Your task to perform on an android device: turn off location history Image 0: 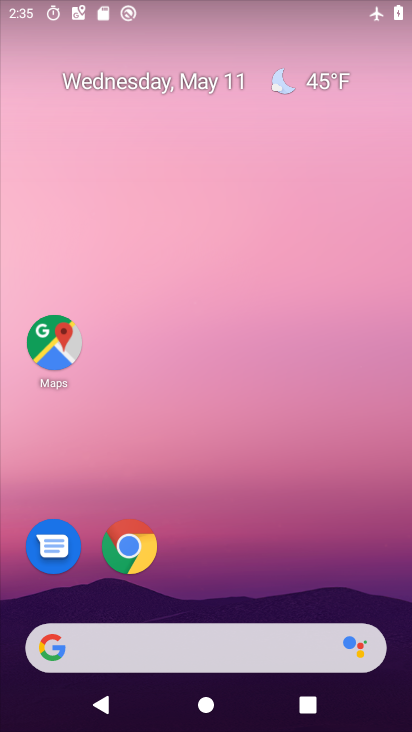
Step 0: drag from (228, 591) to (70, 3)
Your task to perform on an android device: turn off location history Image 1: 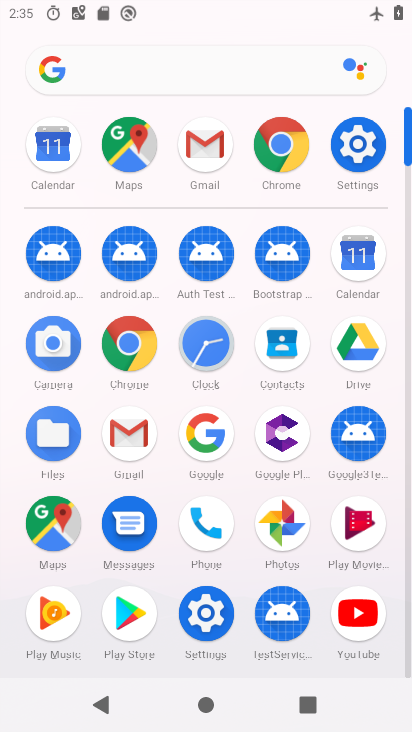
Step 1: click (367, 148)
Your task to perform on an android device: turn off location history Image 2: 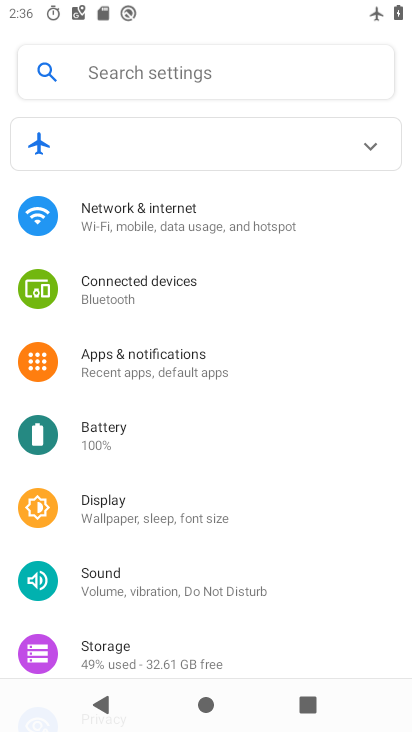
Step 2: drag from (162, 571) to (251, 57)
Your task to perform on an android device: turn off location history Image 3: 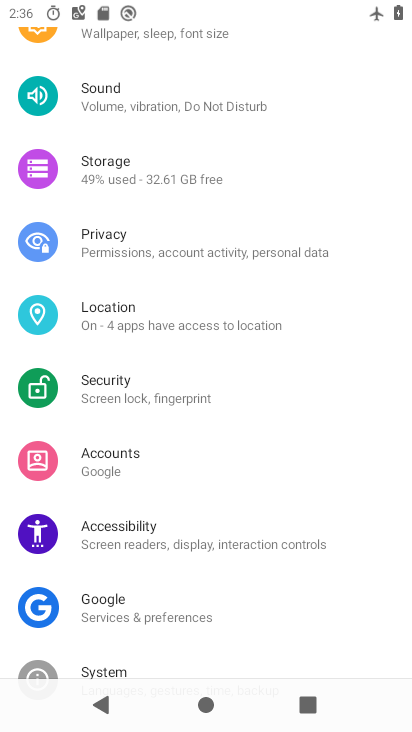
Step 3: click (165, 333)
Your task to perform on an android device: turn off location history Image 4: 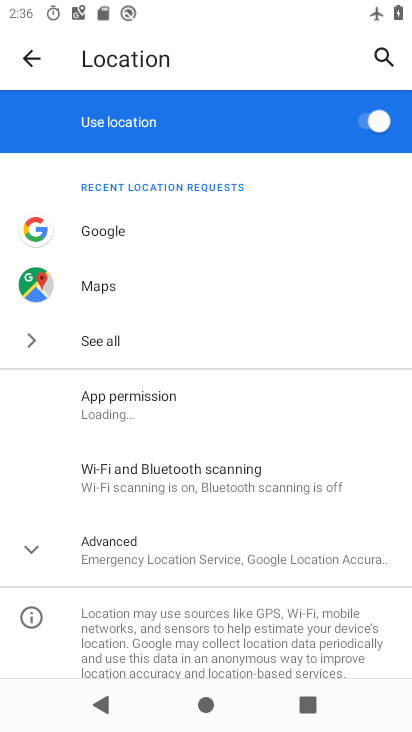
Step 4: click (153, 559)
Your task to perform on an android device: turn off location history Image 5: 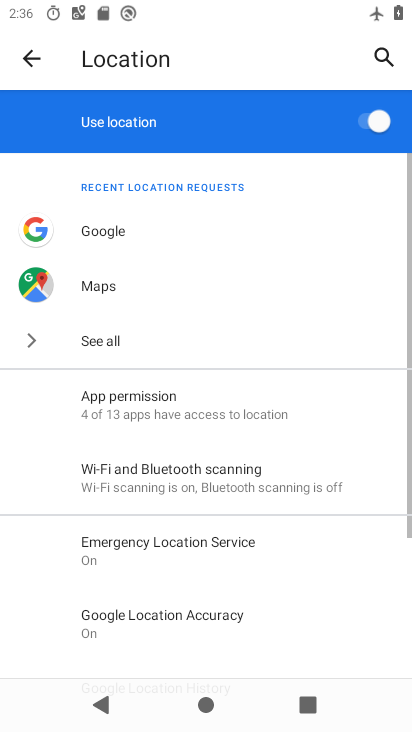
Step 5: drag from (161, 567) to (230, 253)
Your task to perform on an android device: turn off location history Image 6: 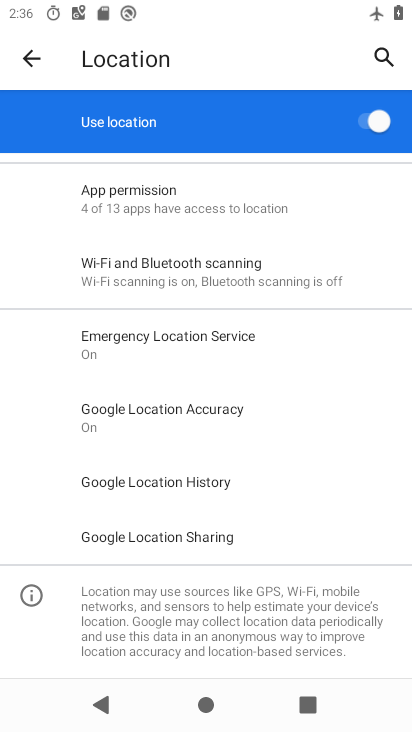
Step 6: click (201, 490)
Your task to perform on an android device: turn off location history Image 7: 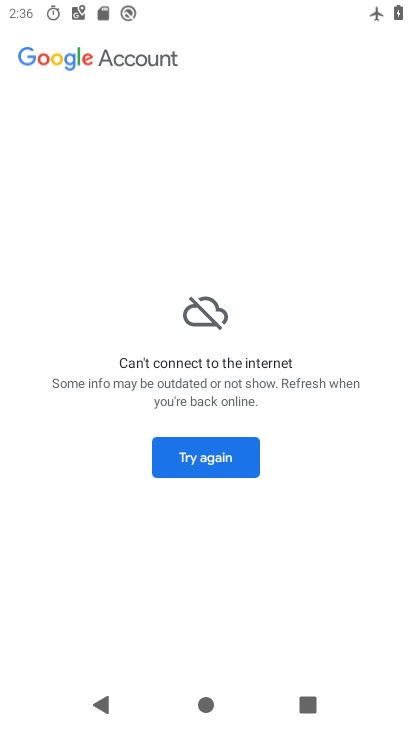
Step 7: click (210, 463)
Your task to perform on an android device: turn off location history Image 8: 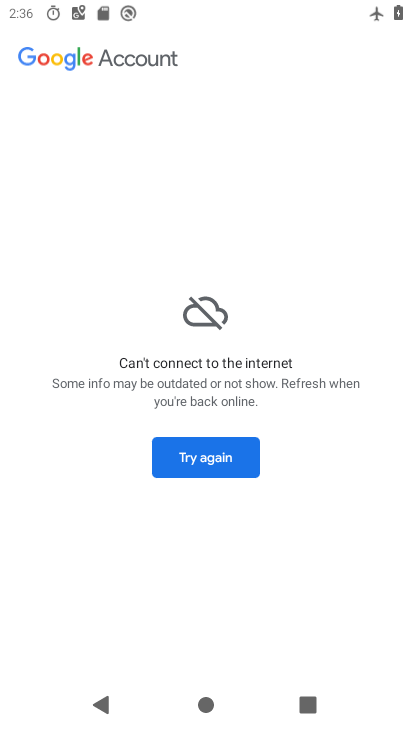
Step 8: task complete